Your task to perform on an android device: Open Yahoo.com Image 0: 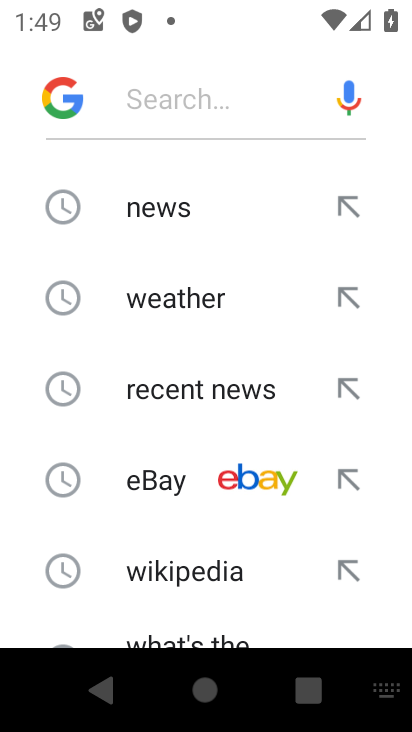
Step 0: press home button
Your task to perform on an android device: Open Yahoo.com Image 1: 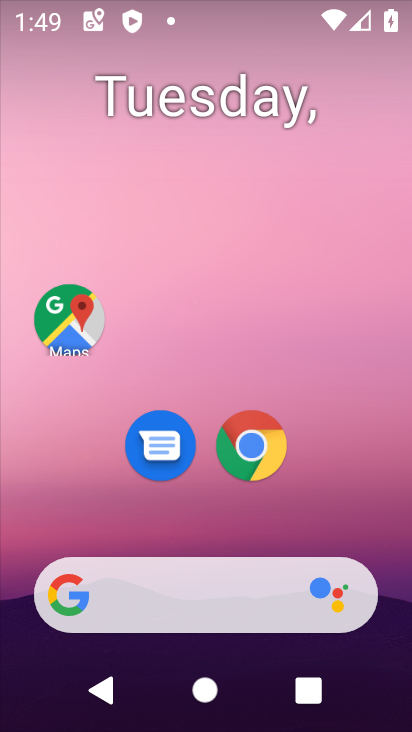
Step 1: click (253, 457)
Your task to perform on an android device: Open Yahoo.com Image 2: 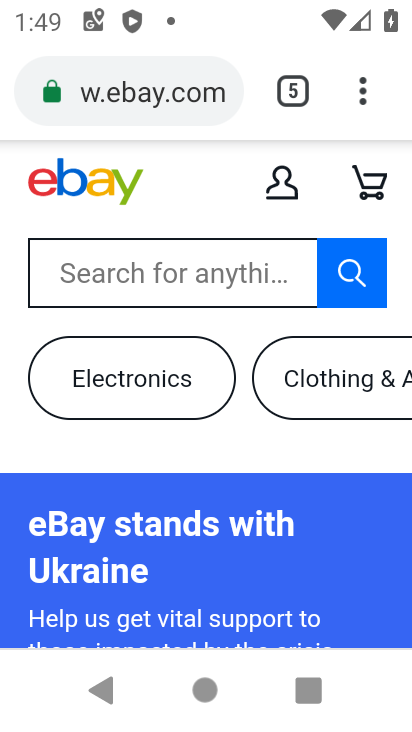
Step 2: click (192, 98)
Your task to perform on an android device: Open Yahoo.com Image 3: 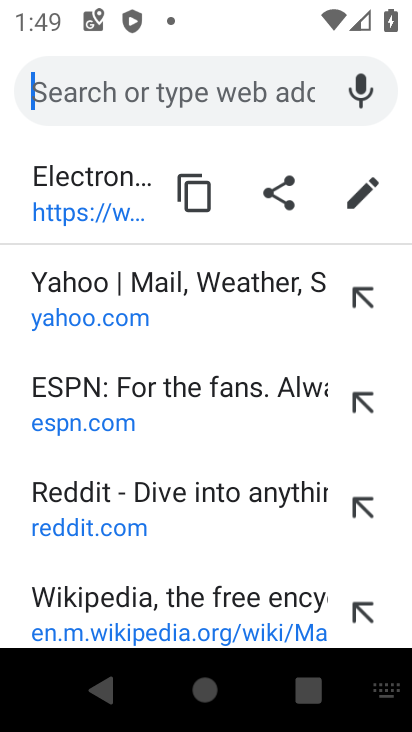
Step 3: click (135, 293)
Your task to perform on an android device: Open Yahoo.com Image 4: 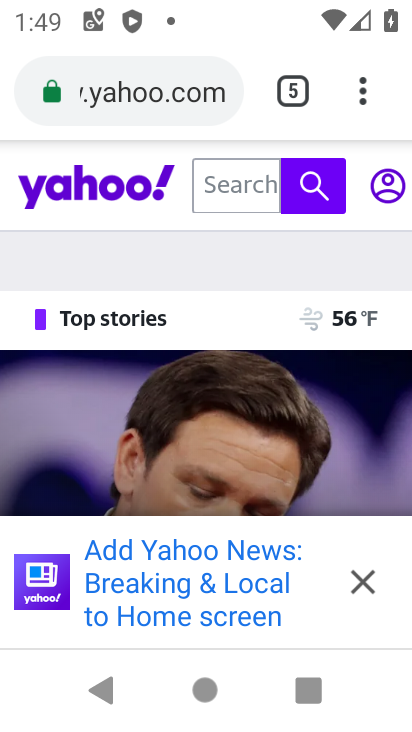
Step 4: task complete